Your task to perform on an android device: turn off location Image 0: 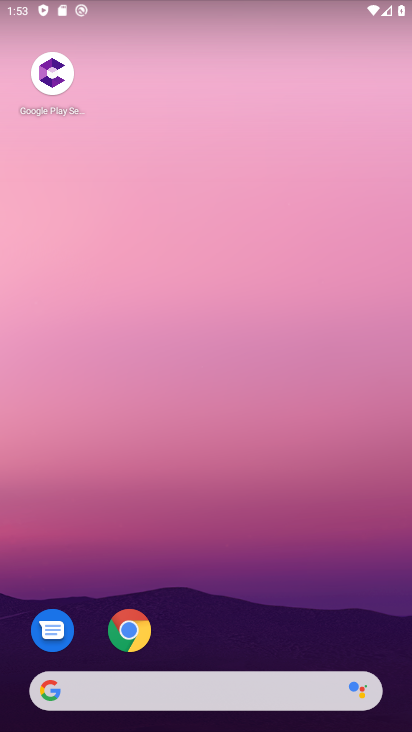
Step 0: drag from (96, 441) to (379, 15)
Your task to perform on an android device: turn off location Image 1: 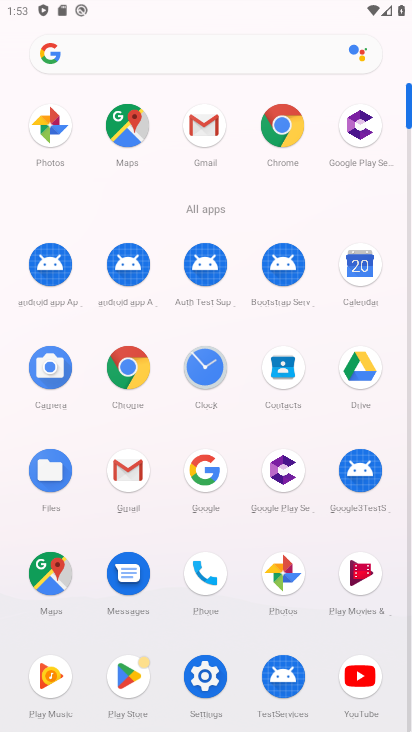
Step 1: click (194, 684)
Your task to perform on an android device: turn off location Image 2: 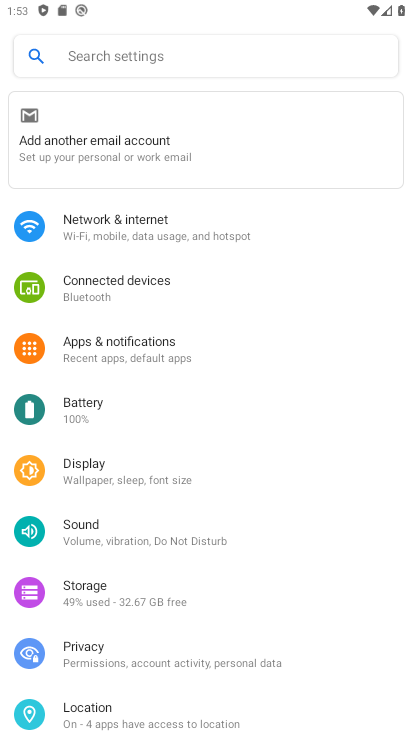
Step 2: click (86, 724)
Your task to perform on an android device: turn off location Image 3: 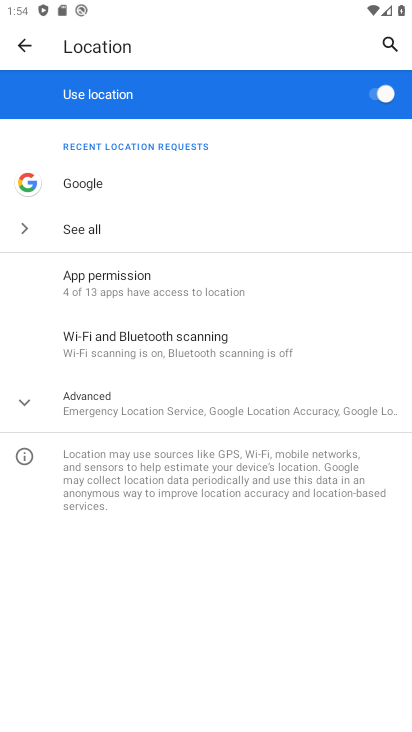
Step 3: click (381, 96)
Your task to perform on an android device: turn off location Image 4: 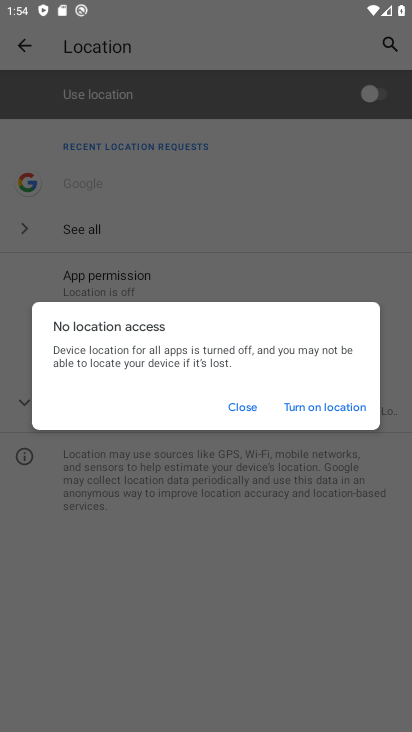
Step 4: click (233, 411)
Your task to perform on an android device: turn off location Image 5: 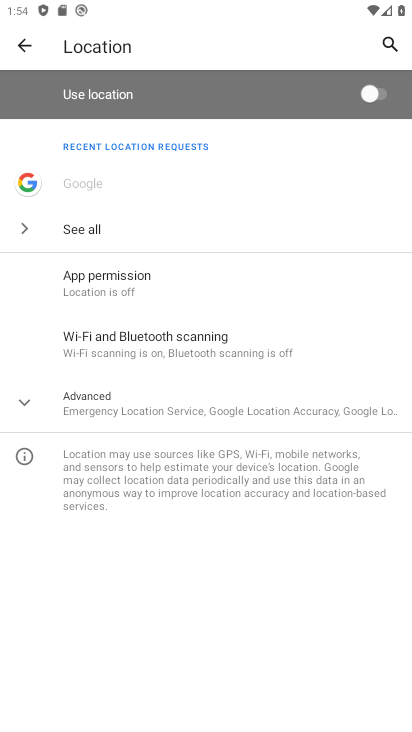
Step 5: task complete